Your task to perform on an android device: change the upload size in google photos Image 0: 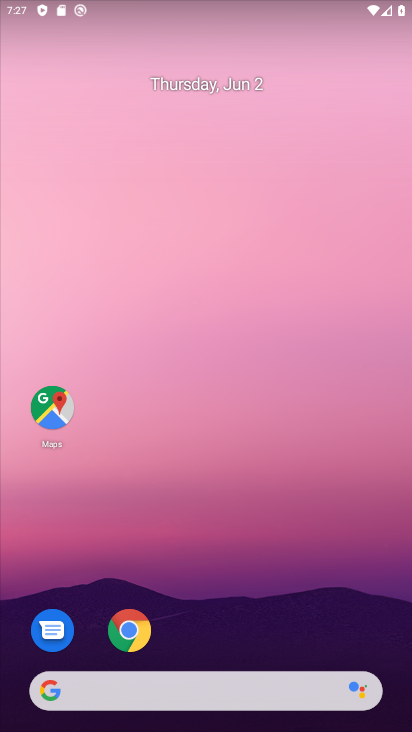
Step 0: drag from (125, 726) to (108, 8)
Your task to perform on an android device: change the upload size in google photos Image 1: 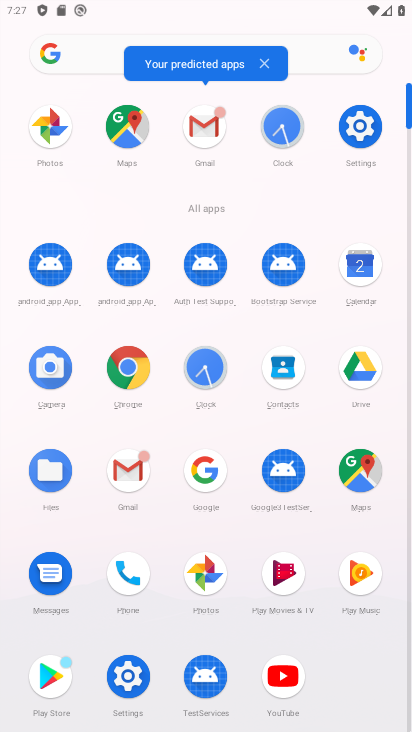
Step 1: click (196, 574)
Your task to perform on an android device: change the upload size in google photos Image 2: 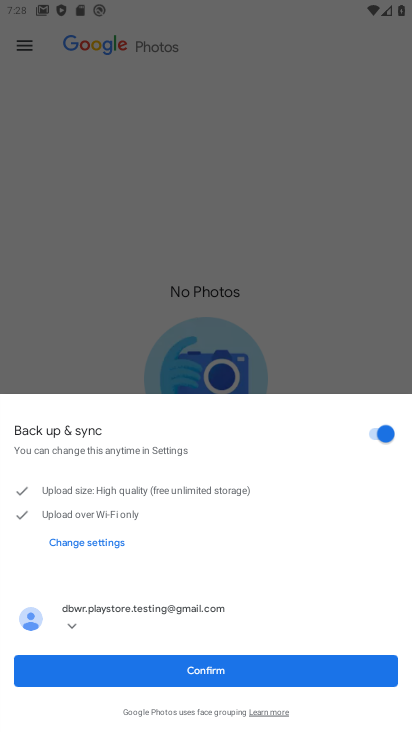
Step 2: click (174, 674)
Your task to perform on an android device: change the upload size in google photos Image 3: 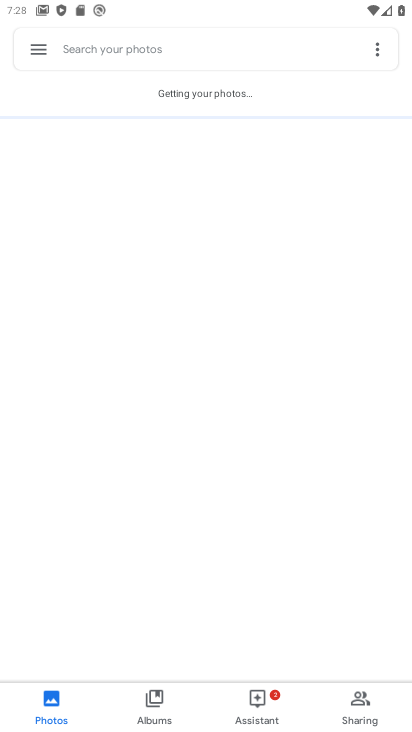
Step 3: click (32, 50)
Your task to perform on an android device: change the upload size in google photos Image 4: 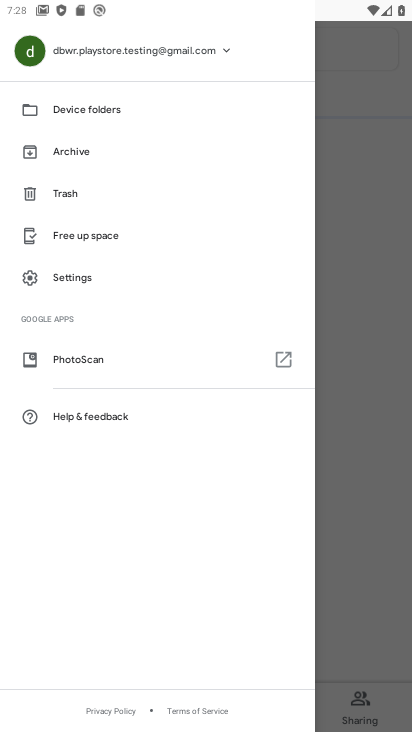
Step 4: click (83, 284)
Your task to perform on an android device: change the upload size in google photos Image 5: 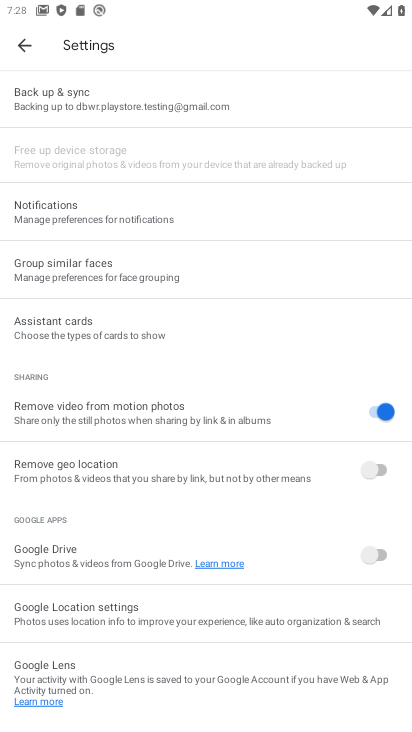
Step 5: click (251, 115)
Your task to perform on an android device: change the upload size in google photos Image 6: 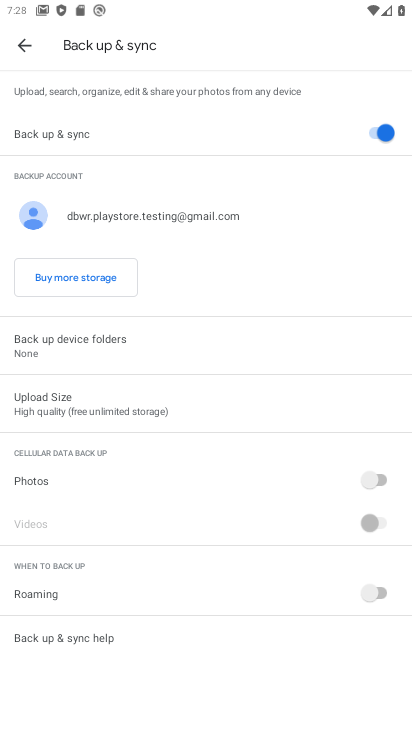
Step 6: click (176, 407)
Your task to perform on an android device: change the upload size in google photos Image 7: 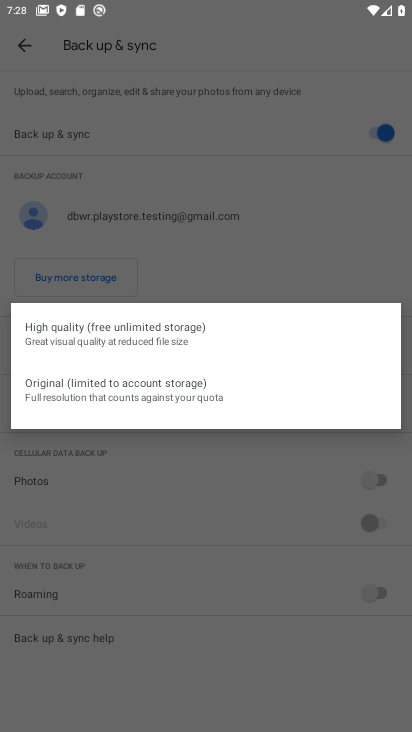
Step 7: click (173, 393)
Your task to perform on an android device: change the upload size in google photos Image 8: 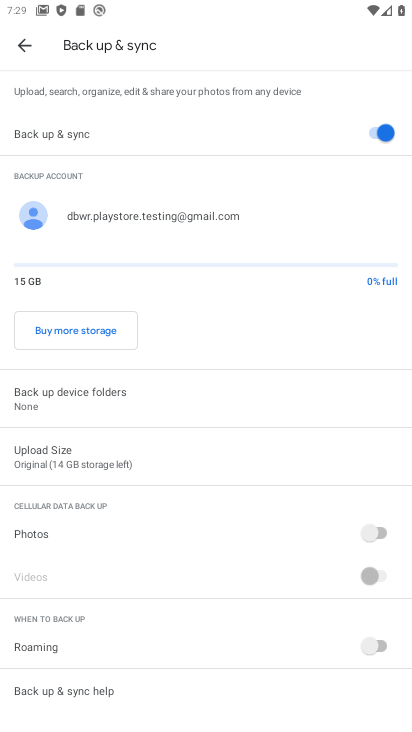
Step 8: task complete